Your task to perform on an android device: Go to eBay Image 0: 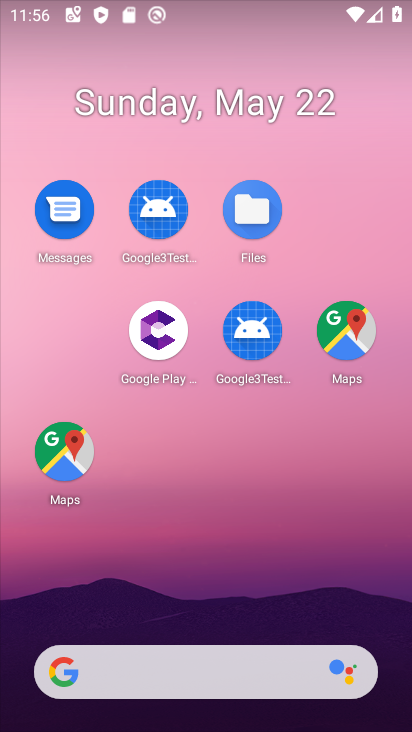
Step 0: drag from (203, 626) to (200, 70)
Your task to perform on an android device: Go to eBay Image 1: 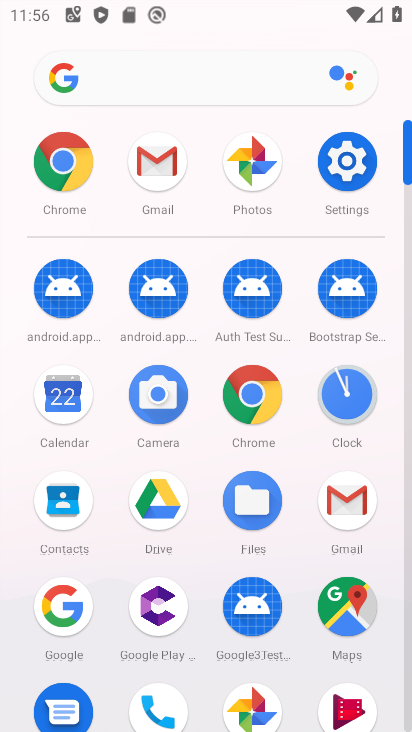
Step 1: click (247, 406)
Your task to perform on an android device: Go to eBay Image 2: 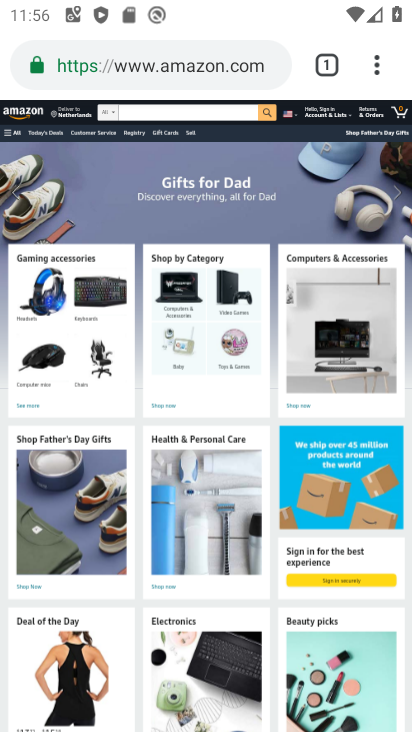
Step 2: click (332, 74)
Your task to perform on an android device: Go to eBay Image 3: 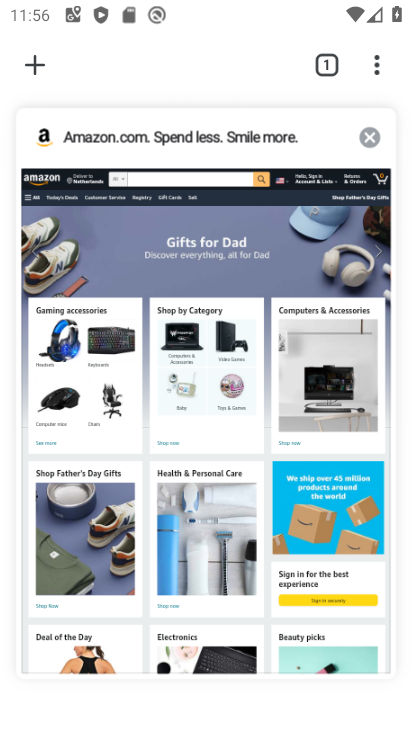
Step 3: click (33, 59)
Your task to perform on an android device: Go to eBay Image 4: 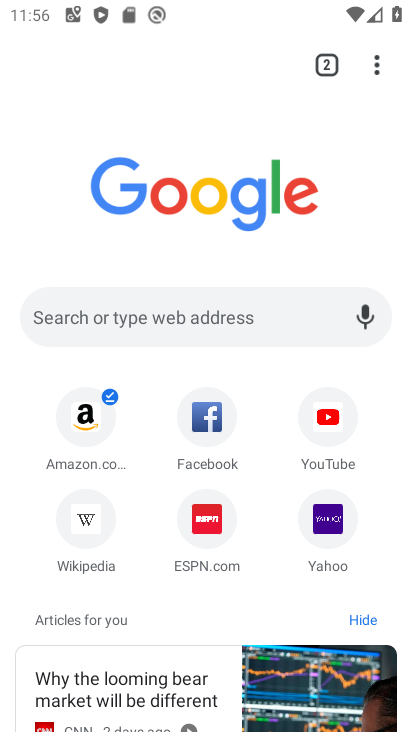
Step 4: click (118, 294)
Your task to perform on an android device: Go to eBay Image 5: 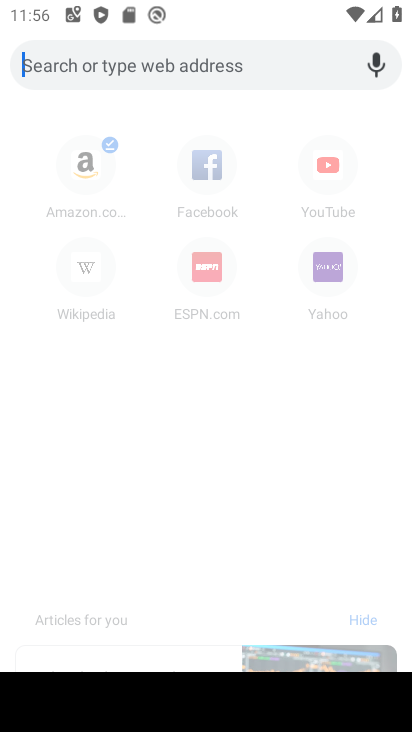
Step 5: type "ebay"
Your task to perform on an android device: Go to eBay Image 6: 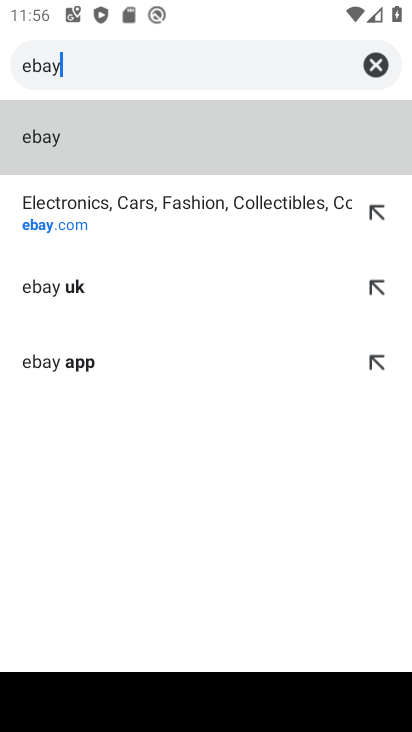
Step 6: click (168, 219)
Your task to perform on an android device: Go to eBay Image 7: 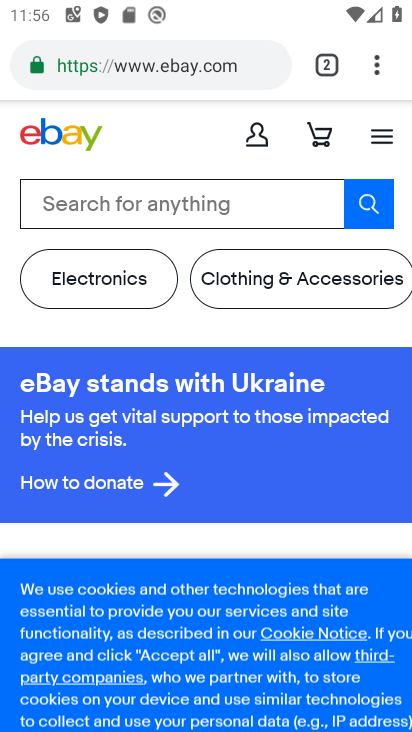
Step 7: task complete